Your task to perform on an android device: Go to Amazon Image 0: 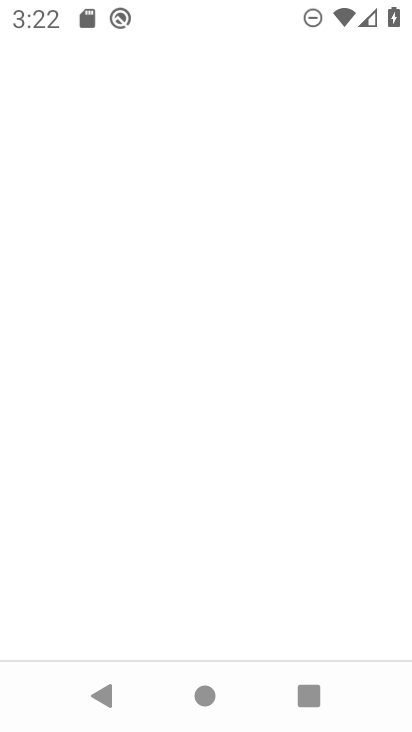
Step 0: drag from (221, 562) to (223, 483)
Your task to perform on an android device: Go to Amazon Image 1: 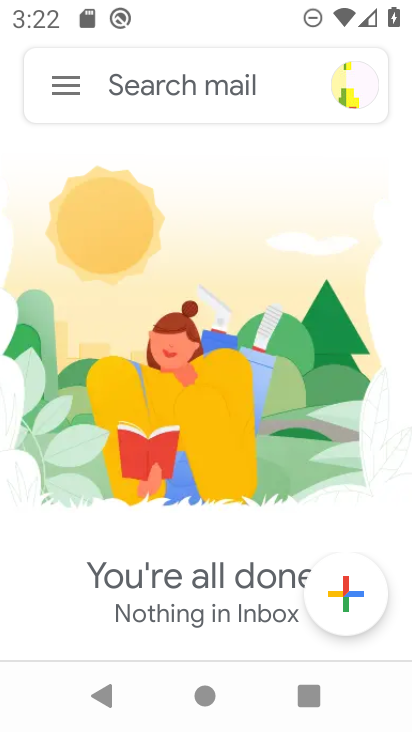
Step 1: press home button
Your task to perform on an android device: Go to Amazon Image 2: 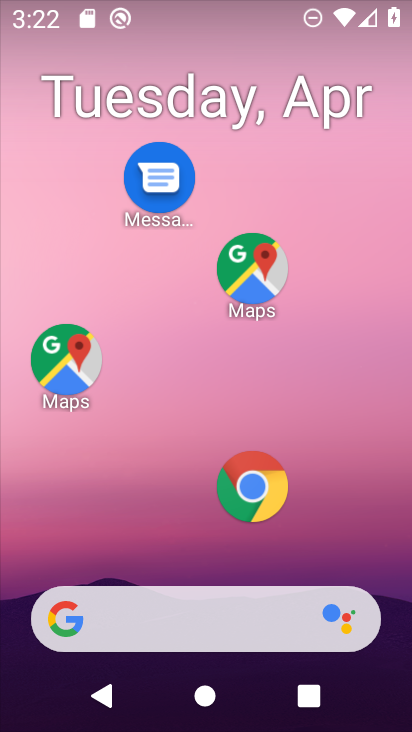
Step 2: click (268, 488)
Your task to perform on an android device: Go to Amazon Image 3: 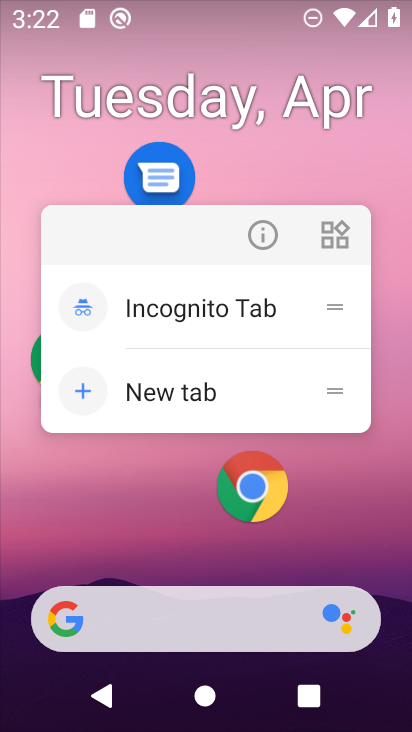
Step 3: click (253, 234)
Your task to perform on an android device: Go to Amazon Image 4: 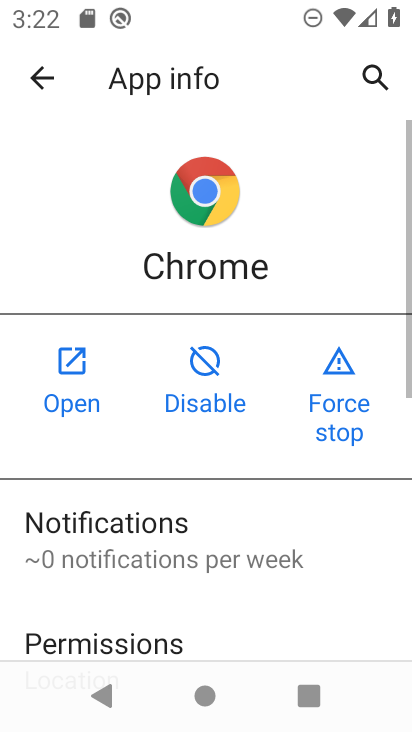
Step 4: click (52, 377)
Your task to perform on an android device: Go to Amazon Image 5: 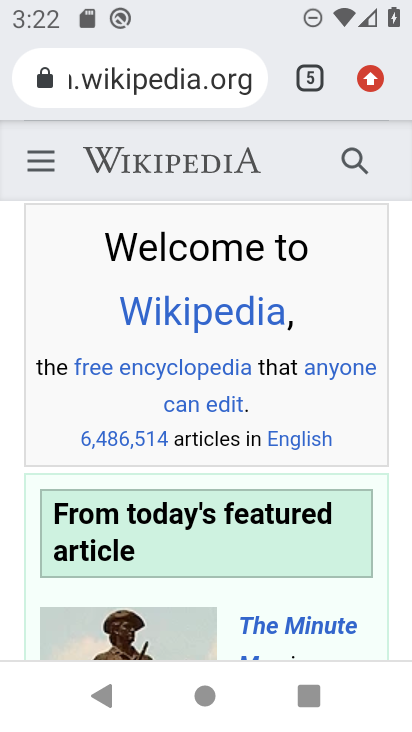
Step 5: click (295, 79)
Your task to perform on an android device: Go to Amazon Image 6: 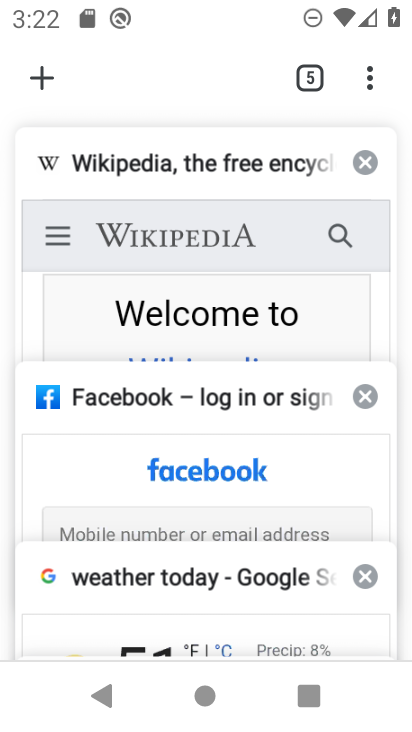
Step 6: click (38, 92)
Your task to perform on an android device: Go to Amazon Image 7: 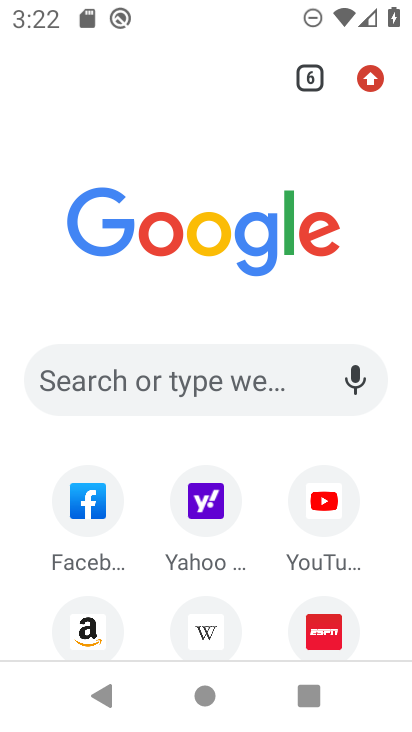
Step 7: click (164, 386)
Your task to perform on an android device: Go to Amazon Image 8: 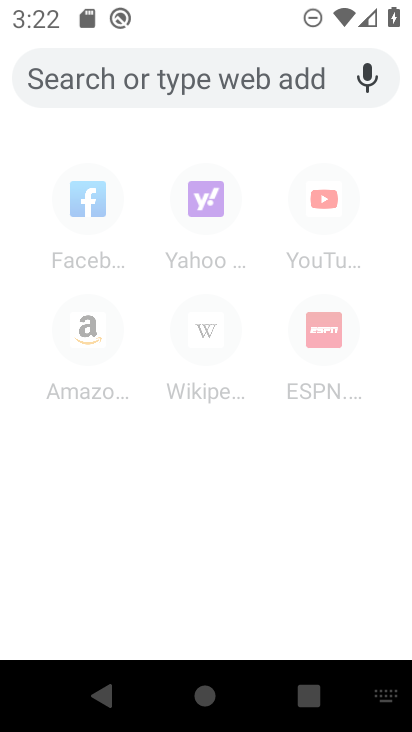
Step 8: type "Amazon"
Your task to perform on an android device: Go to Amazon Image 9: 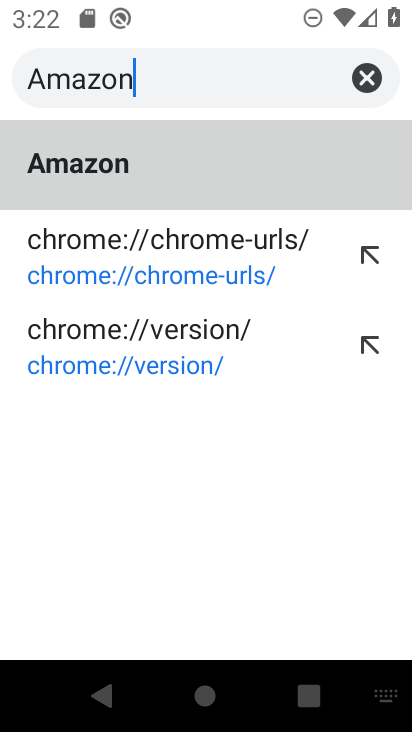
Step 9: type ""
Your task to perform on an android device: Go to Amazon Image 10: 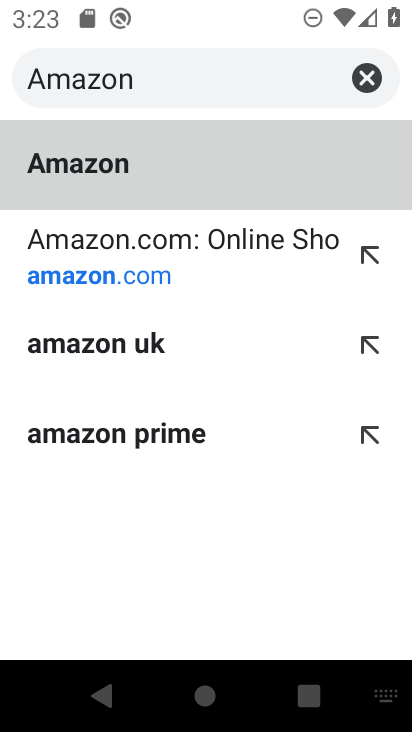
Step 10: click (185, 190)
Your task to perform on an android device: Go to Amazon Image 11: 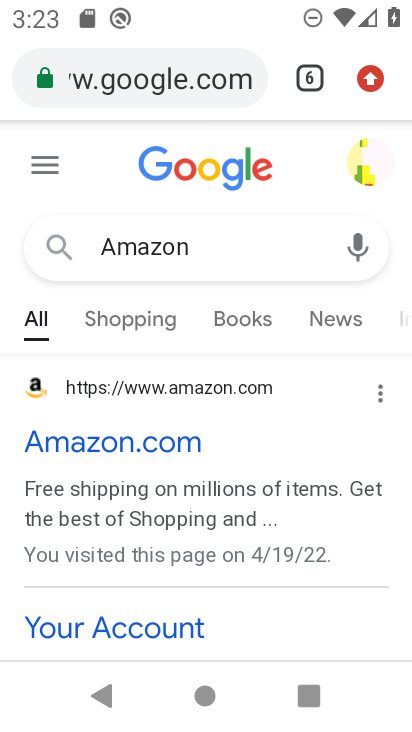
Step 11: click (148, 450)
Your task to perform on an android device: Go to Amazon Image 12: 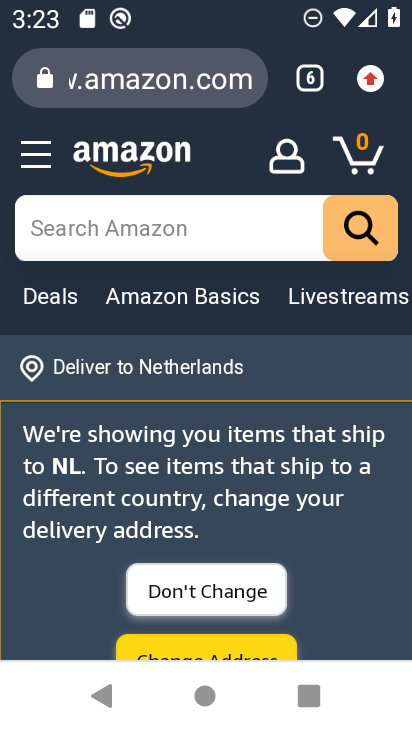
Step 12: task complete